Your task to perform on an android device: Open the calendar and show me this week's events? Image 0: 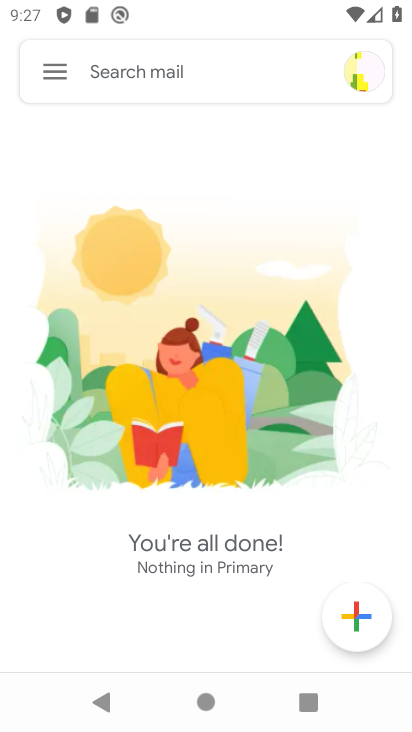
Step 0: press home button
Your task to perform on an android device: Open the calendar and show me this week's events? Image 1: 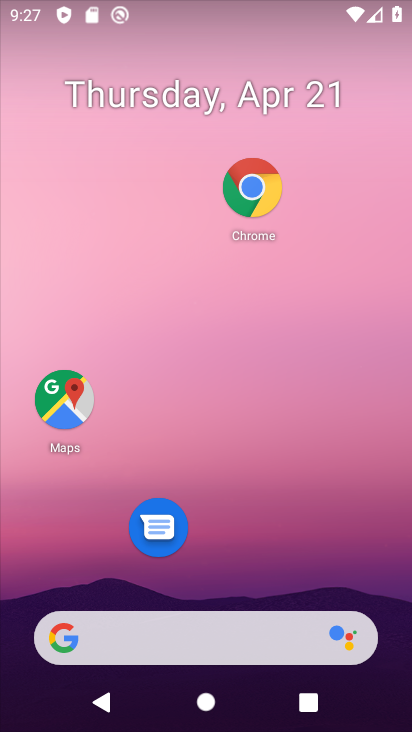
Step 1: drag from (311, 618) to (332, 141)
Your task to perform on an android device: Open the calendar and show me this week's events? Image 2: 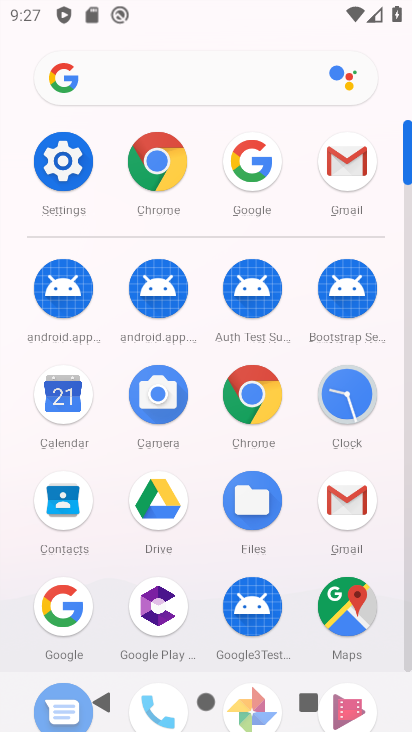
Step 2: click (58, 406)
Your task to perform on an android device: Open the calendar and show me this week's events? Image 3: 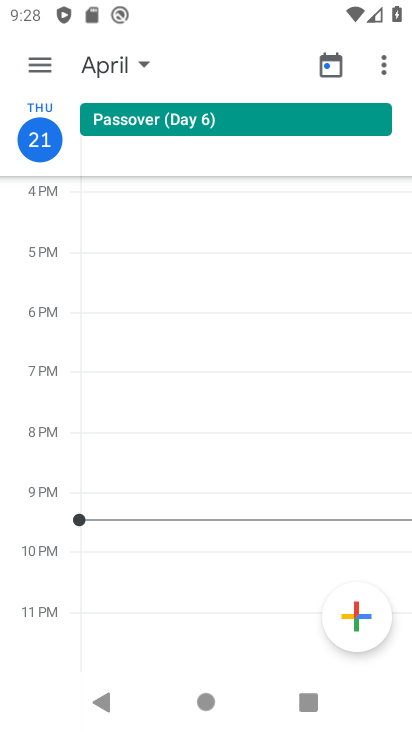
Step 3: click (140, 67)
Your task to perform on an android device: Open the calendar and show me this week's events? Image 4: 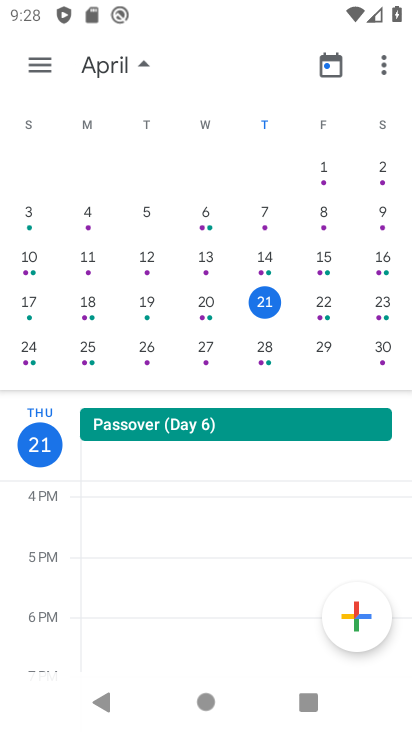
Step 4: task complete